Your task to perform on an android device: open app "Airtel Thanks" (install if not already installed) and enter user name: "acclaimed@inbox.com" and password: "dichotomize" Image 0: 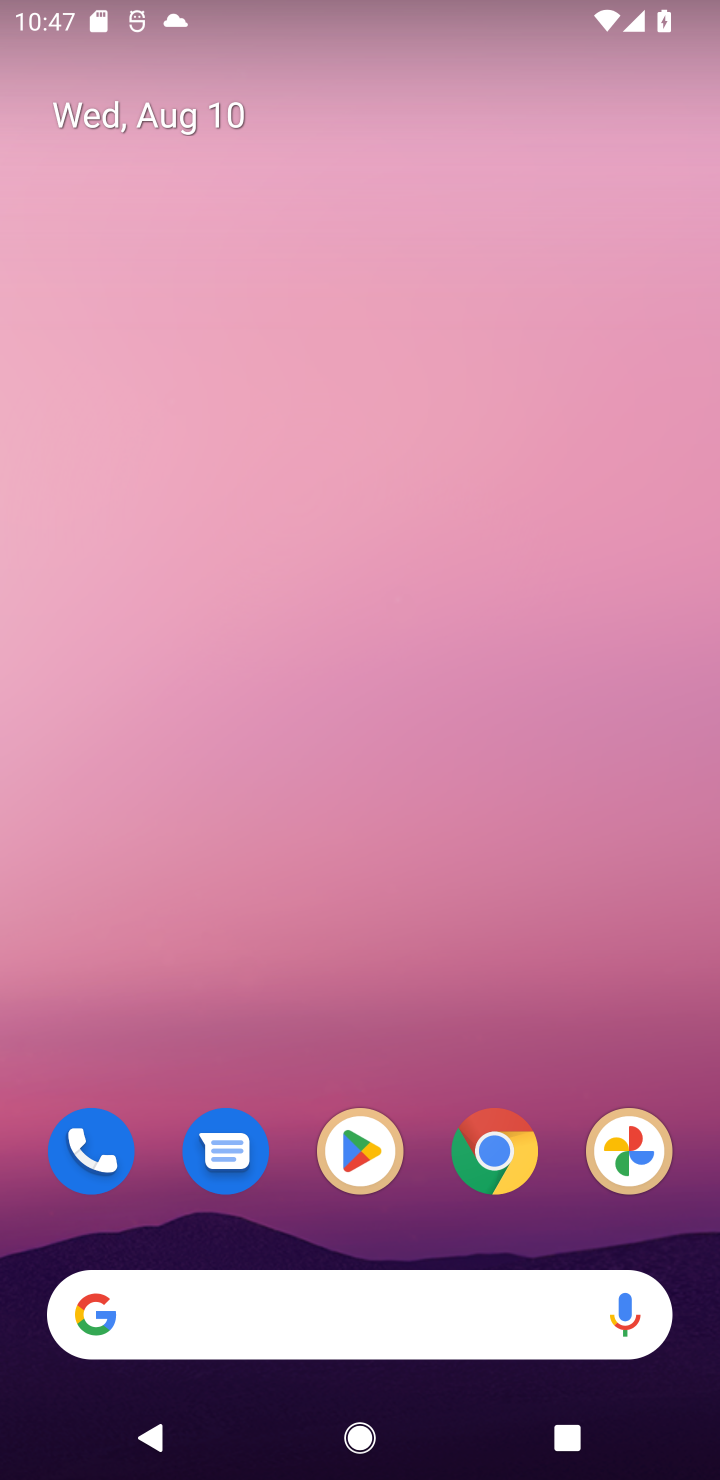
Step 0: press home button
Your task to perform on an android device: open app "Airtel Thanks" (install if not already installed) and enter user name: "acclaimed@inbox.com" and password: "dichotomize" Image 1: 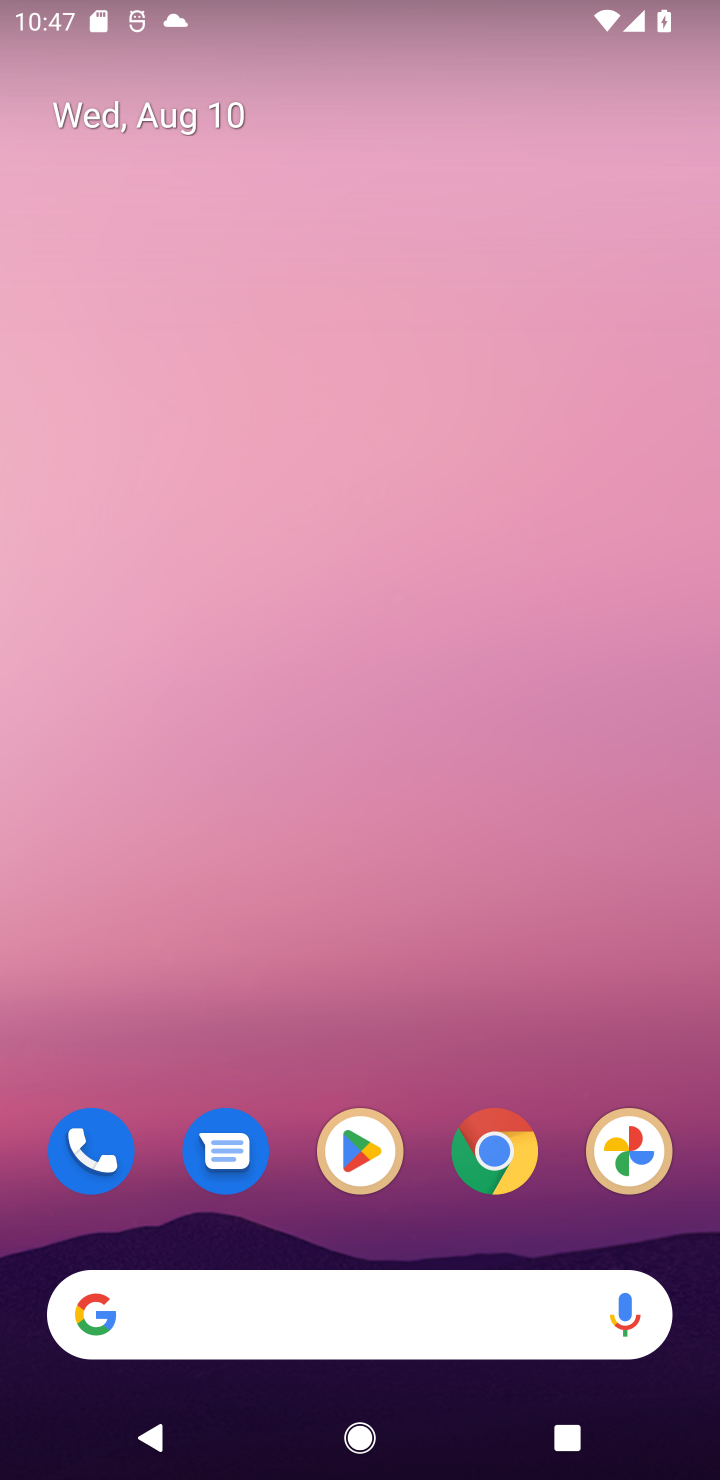
Step 1: press home button
Your task to perform on an android device: open app "Airtel Thanks" (install if not already installed) and enter user name: "acclaimed@inbox.com" and password: "dichotomize" Image 2: 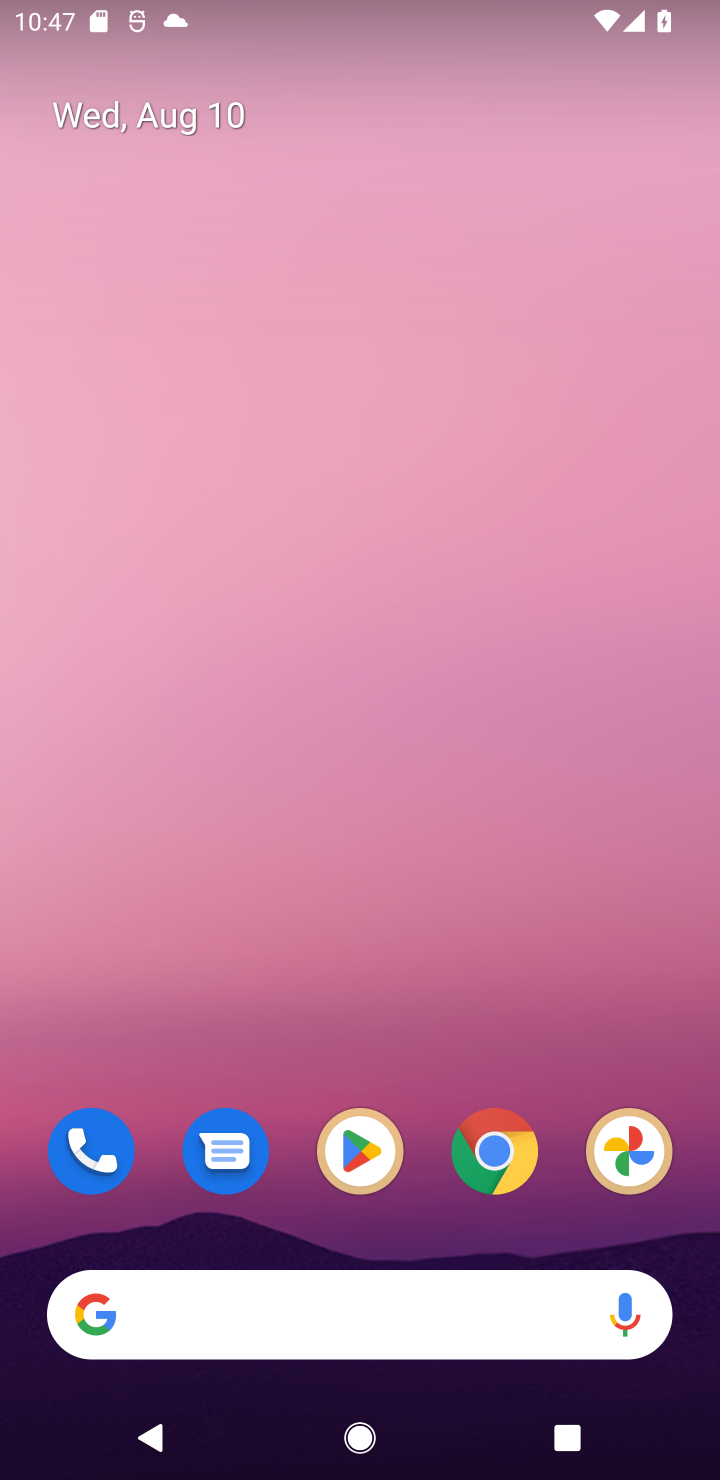
Step 2: drag from (410, 1099) to (452, 313)
Your task to perform on an android device: open app "Airtel Thanks" (install if not already installed) and enter user name: "acclaimed@inbox.com" and password: "dichotomize" Image 3: 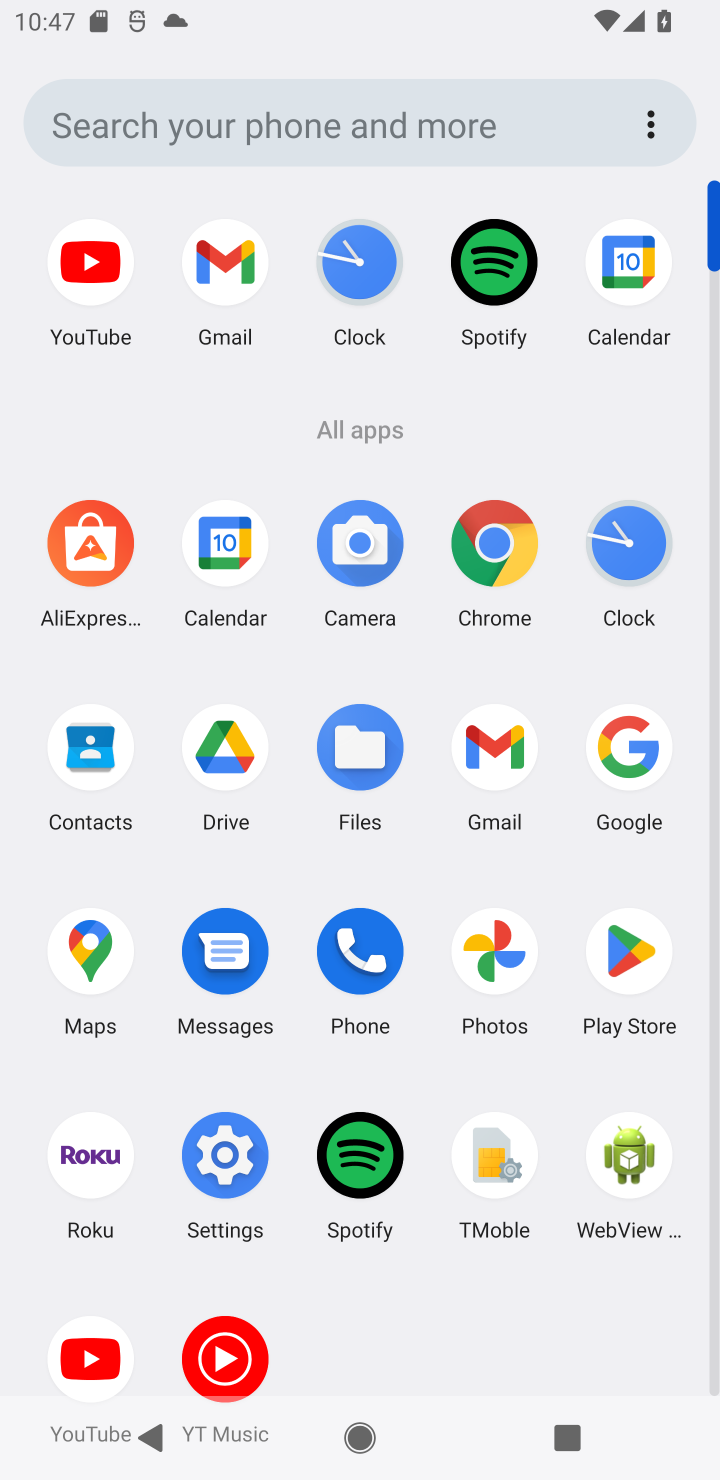
Step 3: click (612, 937)
Your task to perform on an android device: open app "Airtel Thanks" (install if not already installed) and enter user name: "acclaimed@inbox.com" and password: "dichotomize" Image 4: 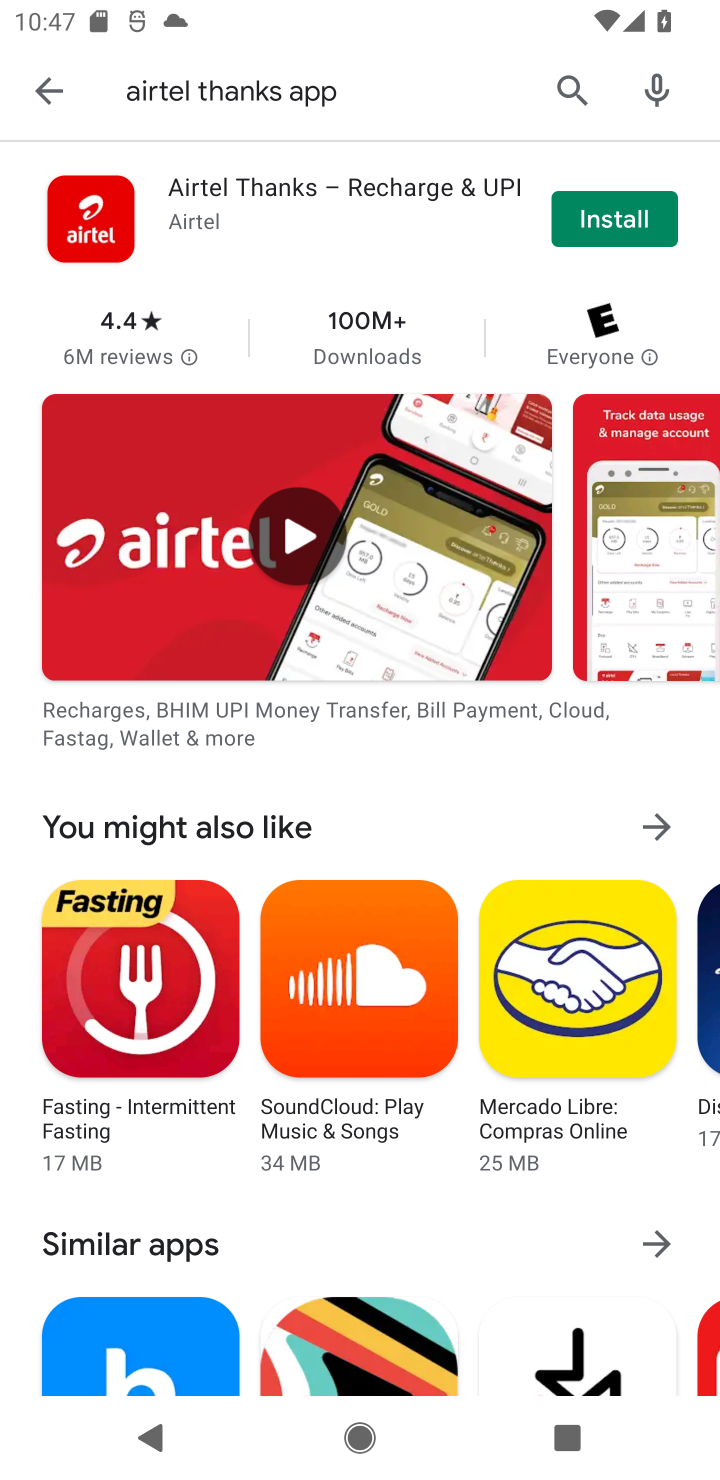
Step 4: click (623, 220)
Your task to perform on an android device: open app "Airtel Thanks" (install if not already installed) and enter user name: "acclaimed@inbox.com" and password: "dichotomize" Image 5: 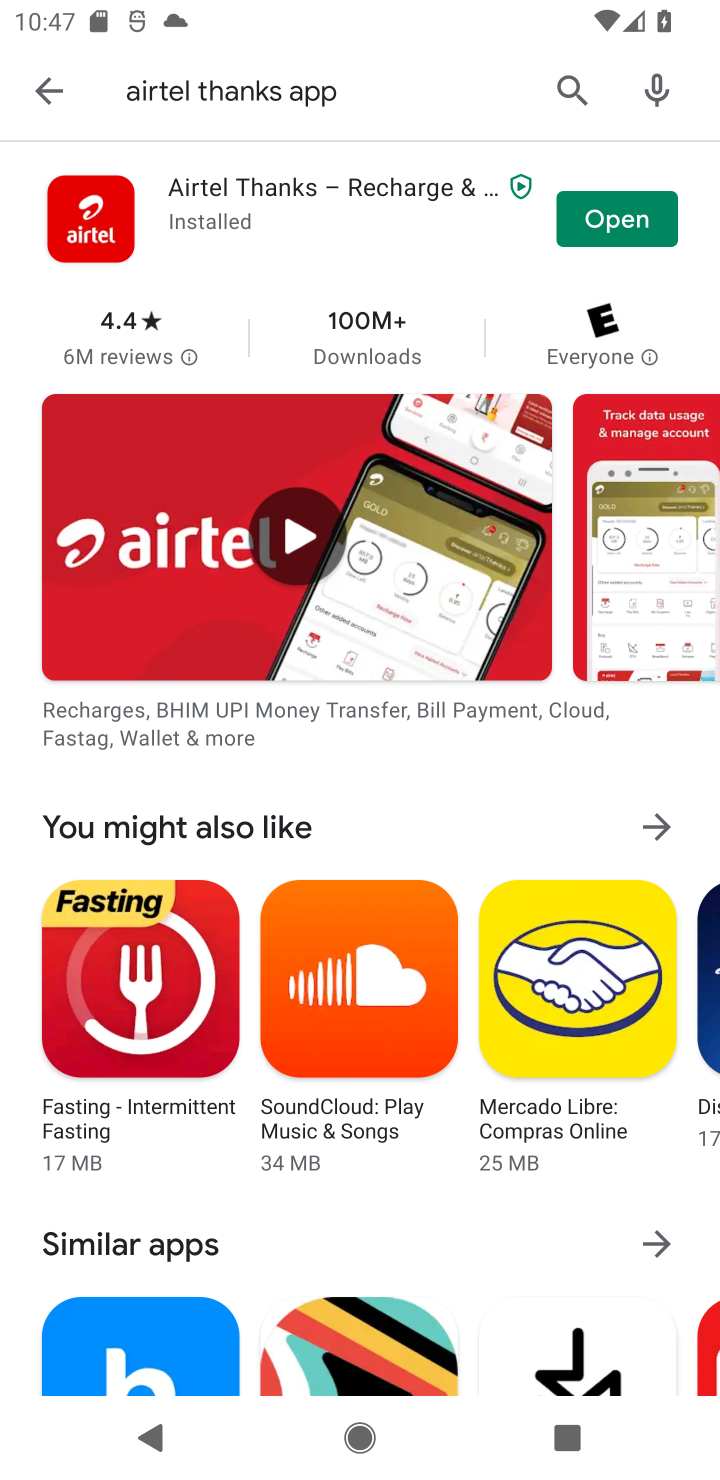
Step 5: click (623, 221)
Your task to perform on an android device: open app "Airtel Thanks" (install if not already installed) and enter user name: "acclaimed@inbox.com" and password: "dichotomize" Image 6: 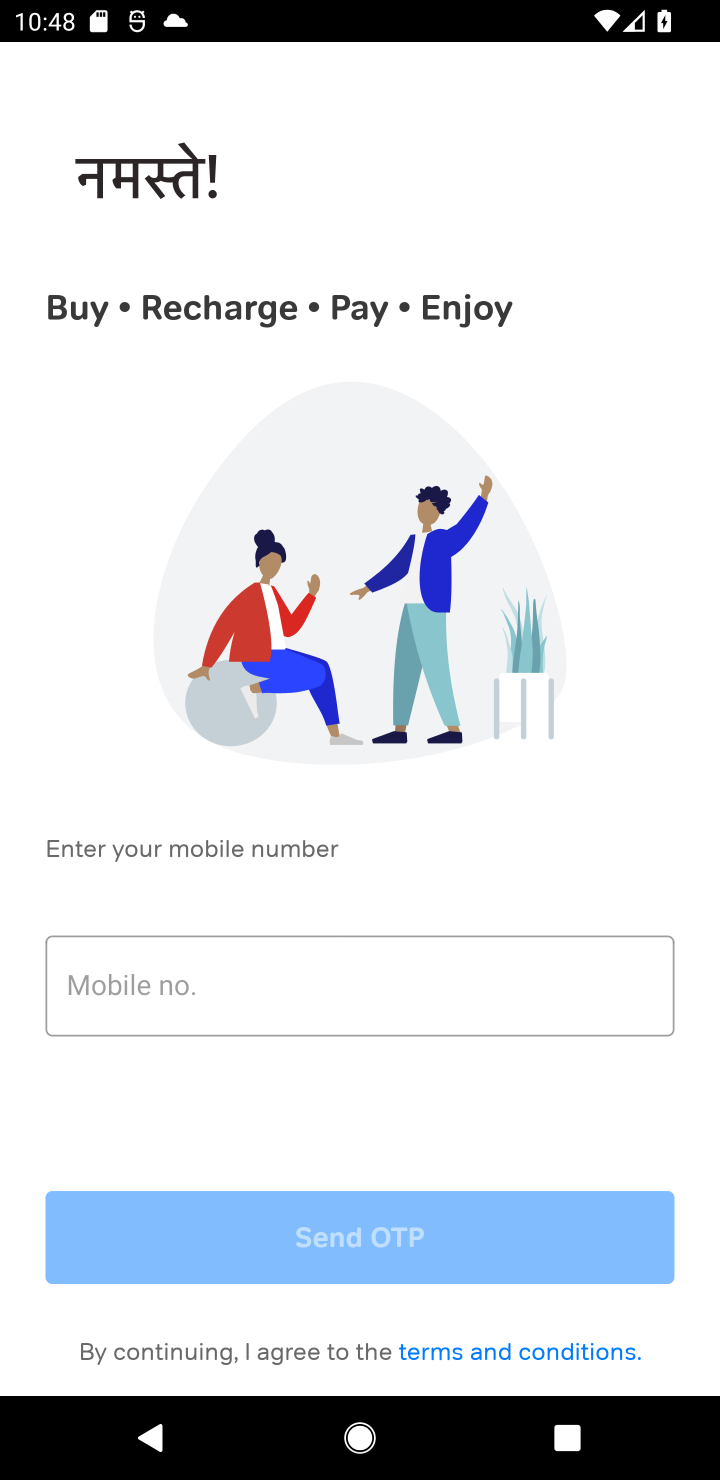
Step 6: task complete